Your task to perform on an android device: move an email to a new category in the gmail app Image 0: 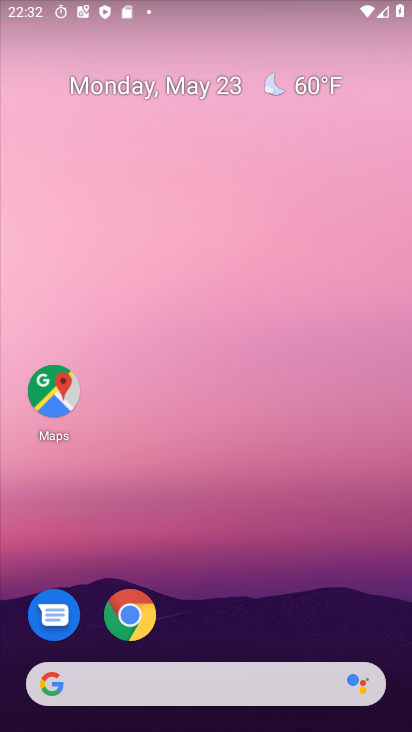
Step 0: drag from (256, 611) to (286, 121)
Your task to perform on an android device: move an email to a new category in the gmail app Image 1: 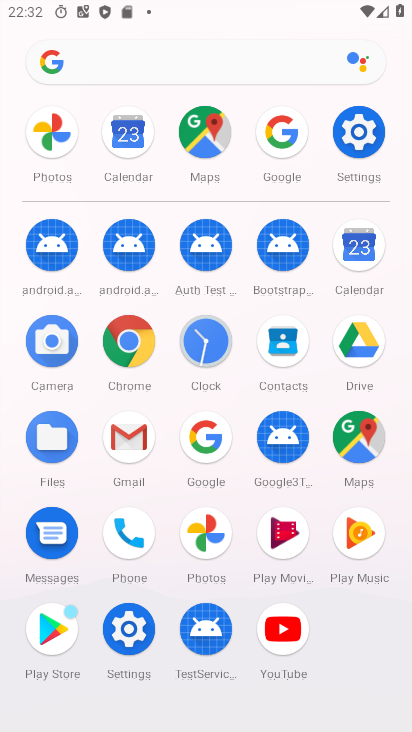
Step 1: click (129, 445)
Your task to perform on an android device: move an email to a new category in the gmail app Image 2: 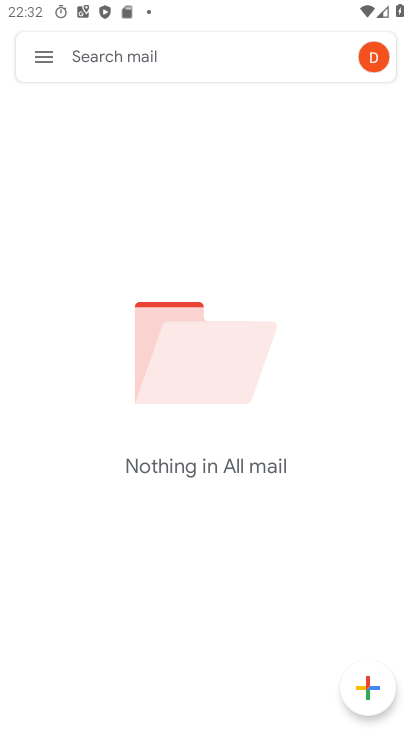
Step 2: click (37, 61)
Your task to perform on an android device: move an email to a new category in the gmail app Image 3: 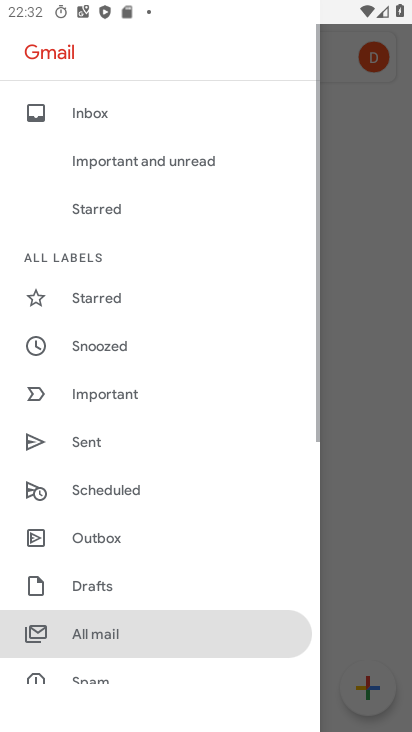
Step 3: click (348, 248)
Your task to perform on an android device: move an email to a new category in the gmail app Image 4: 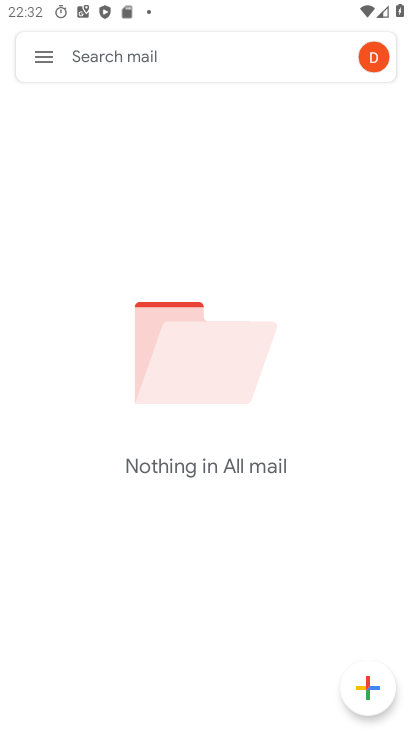
Step 4: task complete